Your task to perform on an android device: turn pop-ups on in chrome Image 0: 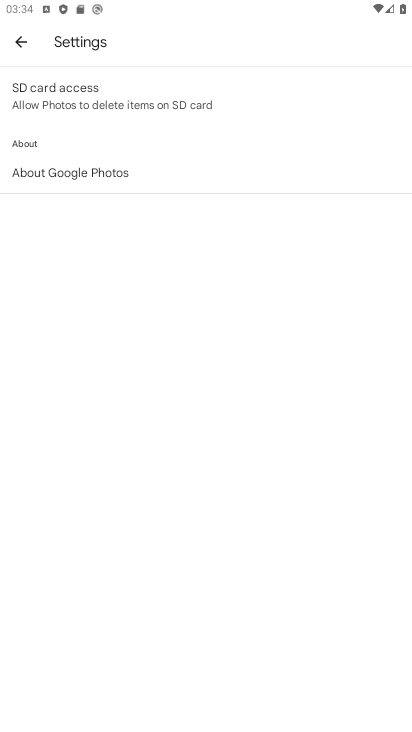
Step 0: press home button
Your task to perform on an android device: turn pop-ups on in chrome Image 1: 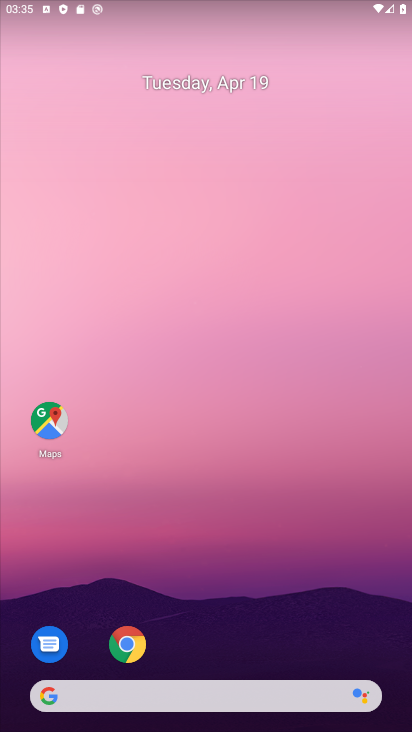
Step 1: click (127, 643)
Your task to perform on an android device: turn pop-ups on in chrome Image 2: 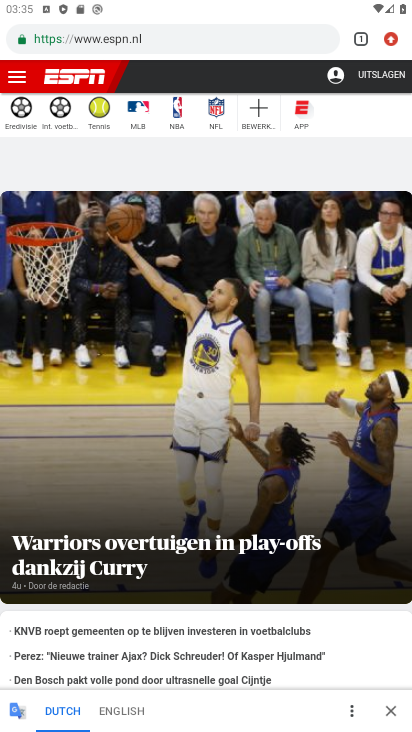
Step 2: click (384, 36)
Your task to perform on an android device: turn pop-ups on in chrome Image 3: 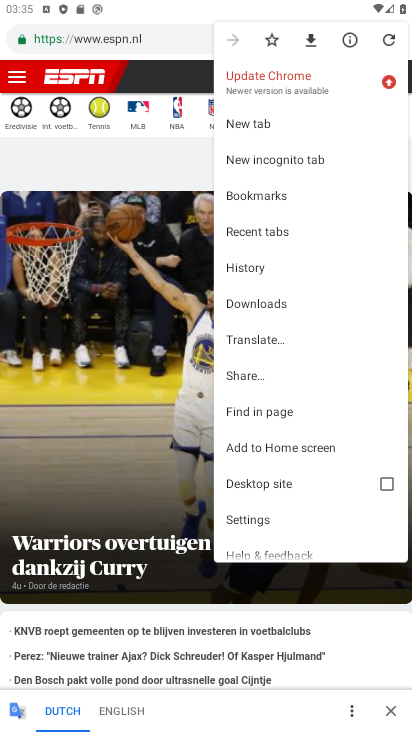
Step 3: click (268, 509)
Your task to perform on an android device: turn pop-ups on in chrome Image 4: 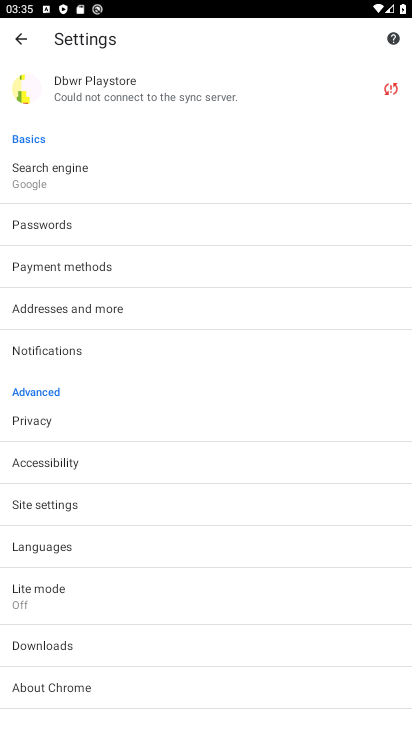
Step 4: click (61, 497)
Your task to perform on an android device: turn pop-ups on in chrome Image 5: 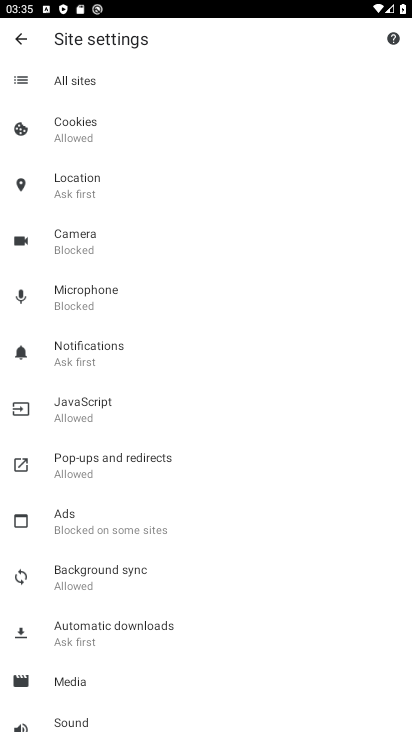
Step 5: click (104, 451)
Your task to perform on an android device: turn pop-ups on in chrome Image 6: 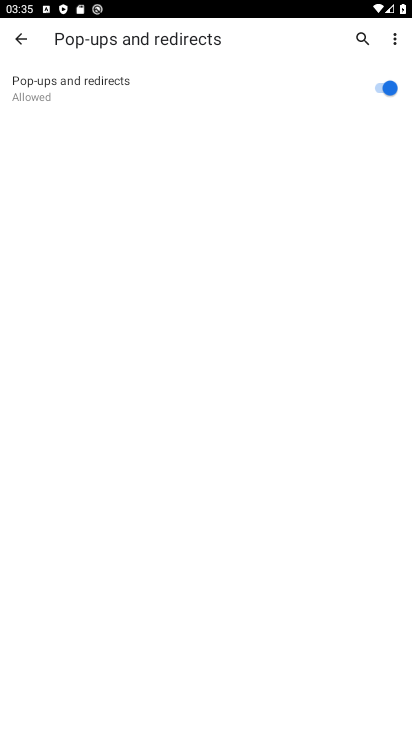
Step 6: task complete